Your task to perform on an android device: Clear the cart on amazon. Search for razer kraken on amazon, select the first entry, add it to the cart, then select checkout. Image 0: 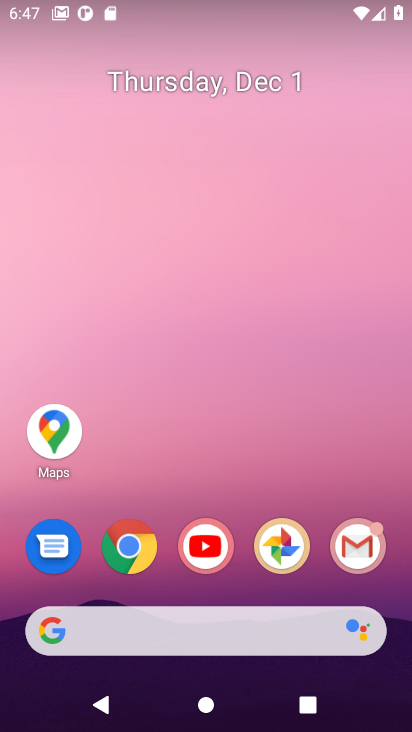
Step 0: click (135, 562)
Your task to perform on an android device: Clear the cart on amazon. Search for razer kraken on amazon, select the first entry, add it to the cart, then select checkout. Image 1: 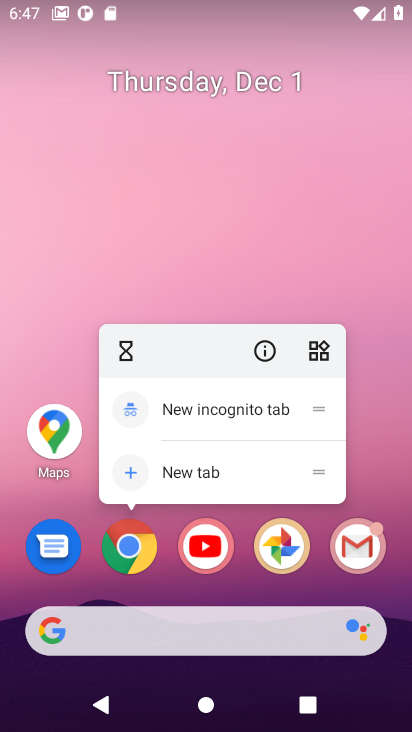
Step 1: click (128, 546)
Your task to perform on an android device: Clear the cart on amazon. Search for razer kraken on amazon, select the first entry, add it to the cart, then select checkout. Image 2: 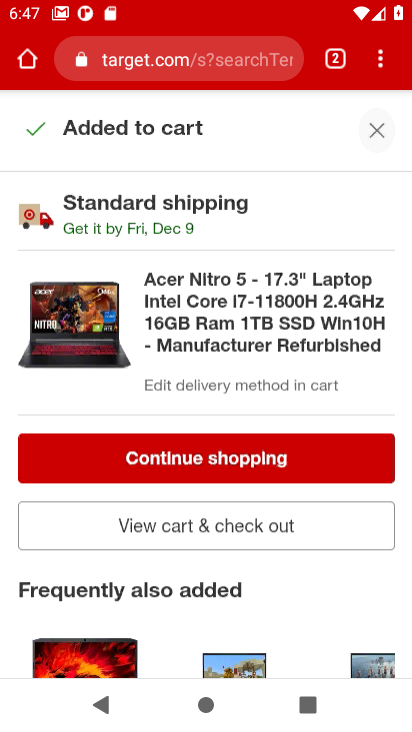
Step 2: click (175, 56)
Your task to perform on an android device: Clear the cart on amazon. Search for razer kraken on amazon, select the first entry, add it to the cart, then select checkout. Image 3: 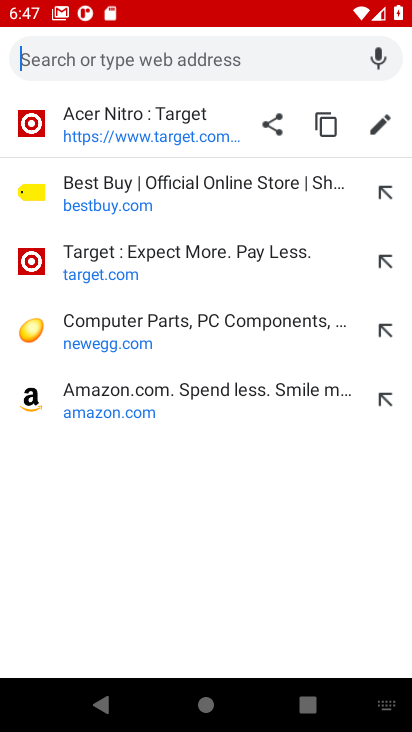
Step 3: click (122, 396)
Your task to perform on an android device: Clear the cart on amazon. Search for razer kraken on amazon, select the first entry, add it to the cart, then select checkout. Image 4: 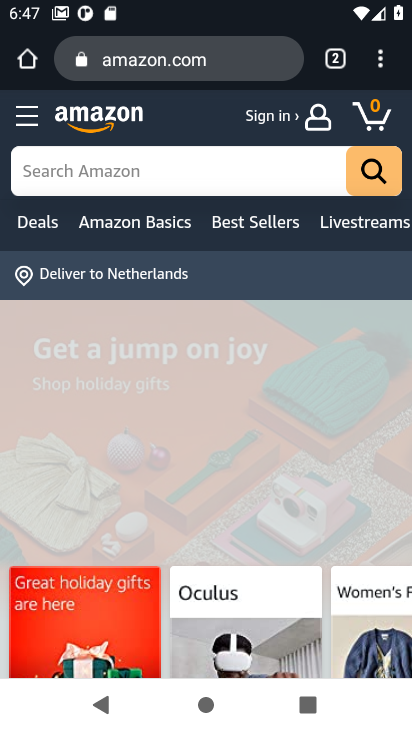
Step 4: click (373, 120)
Your task to perform on an android device: Clear the cart on amazon. Search for razer kraken on amazon, select the first entry, add it to the cart, then select checkout. Image 5: 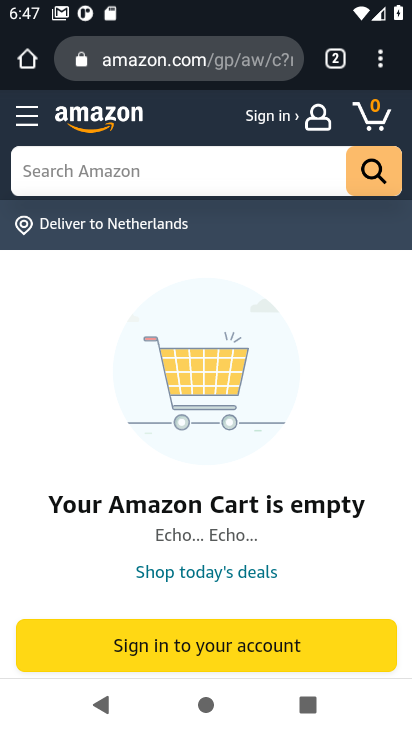
Step 5: click (75, 175)
Your task to perform on an android device: Clear the cart on amazon. Search for razer kraken on amazon, select the first entry, add it to the cart, then select checkout. Image 6: 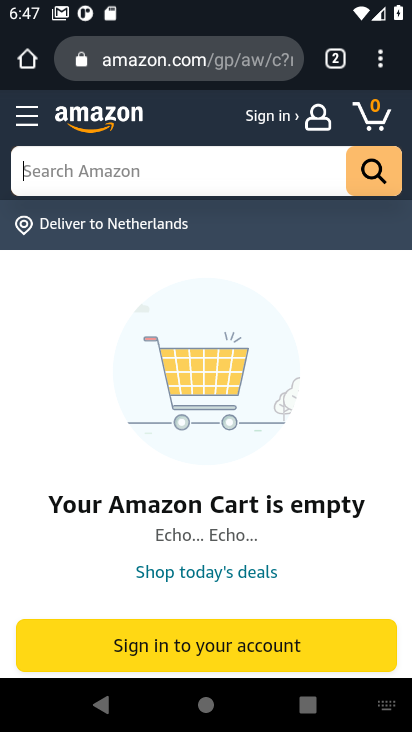
Step 6: type "razer kraken"
Your task to perform on an android device: Clear the cart on amazon. Search for razer kraken on amazon, select the first entry, add it to the cart, then select checkout. Image 7: 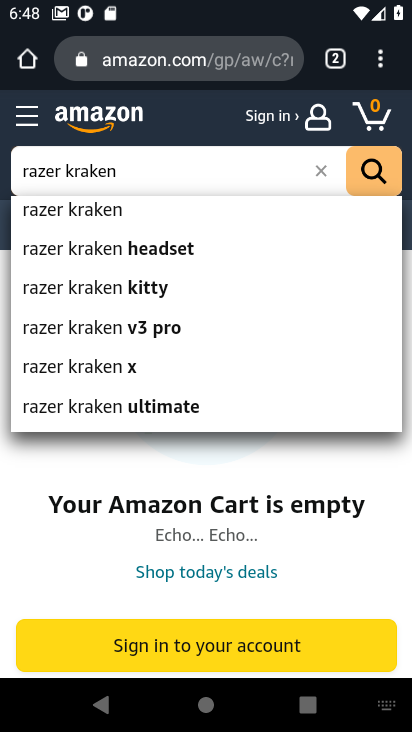
Step 7: click (92, 206)
Your task to perform on an android device: Clear the cart on amazon. Search for razer kraken on amazon, select the first entry, add it to the cart, then select checkout. Image 8: 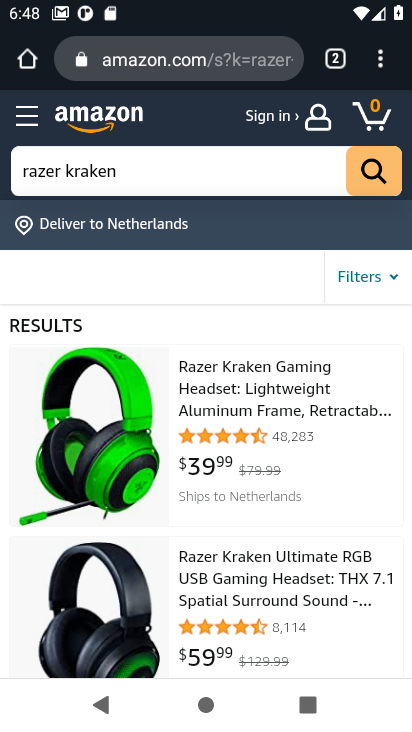
Step 8: click (197, 375)
Your task to perform on an android device: Clear the cart on amazon. Search for razer kraken on amazon, select the first entry, add it to the cart, then select checkout. Image 9: 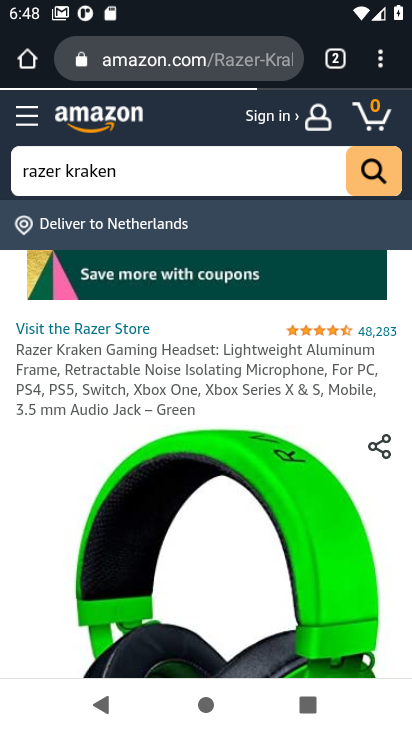
Step 9: drag from (195, 523) to (195, 373)
Your task to perform on an android device: Clear the cart on amazon. Search for razer kraken on amazon, select the first entry, add it to the cart, then select checkout. Image 10: 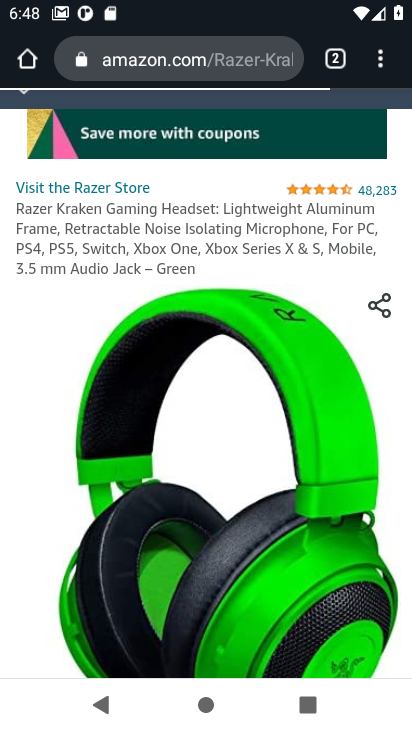
Step 10: drag from (214, 541) to (212, 344)
Your task to perform on an android device: Clear the cart on amazon. Search for razer kraken on amazon, select the first entry, add it to the cart, then select checkout. Image 11: 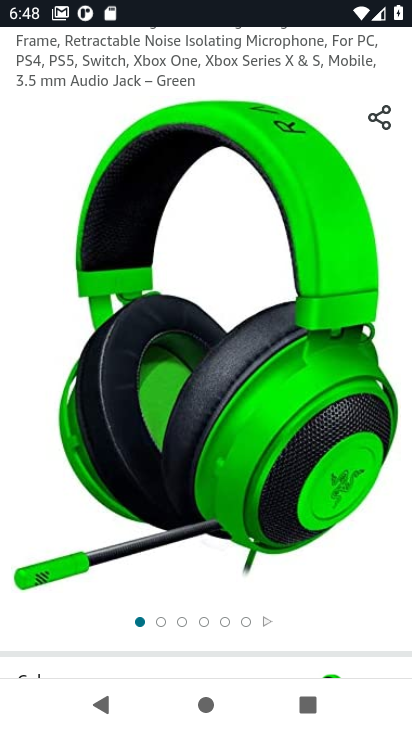
Step 11: drag from (208, 463) to (188, 334)
Your task to perform on an android device: Clear the cart on amazon. Search for razer kraken on amazon, select the first entry, add it to the cart, then select checkout. Image 12: 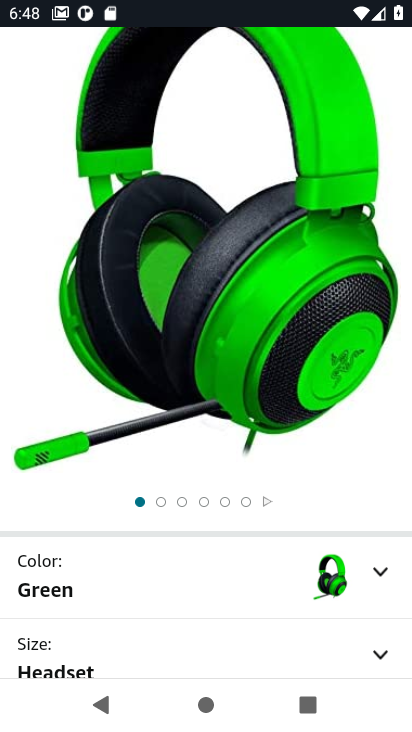
Step 12: drag from (188, 505) to (173, 277)
Your task to perform on an android device: Clear the cart on amazon. Search for razer kraken on amazon, select the first entry, add it to the cart, then select checkout. Image 13: 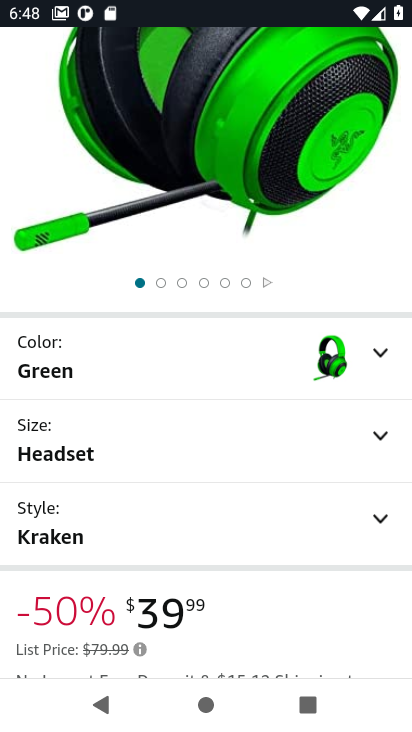
Step 13: drag from (199, 521) to (187, 321)
Your task to perform on an android device: Clear the cart on amazon. Search for razer kraken on amazon, select the first entry, add it to the cart, then select checkout. Image 14: 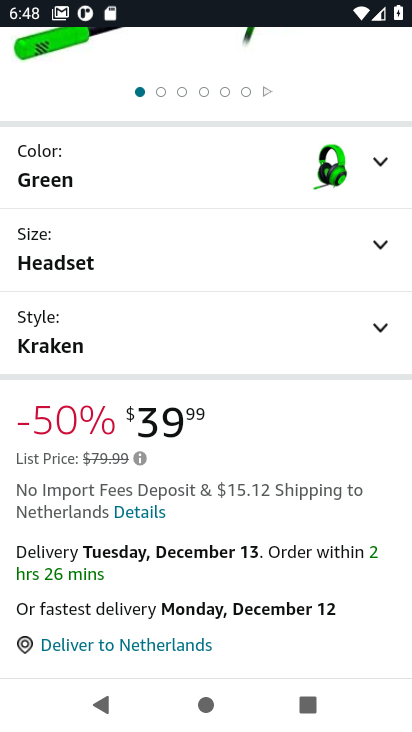
Step 14: drag from (167, 526) to (165, 256)
Your task to perform on an android device: Clear the cart on amazon. Search for razer kraken on amazon, select the first entry, add it to the cart, then select checkout. Image 15: 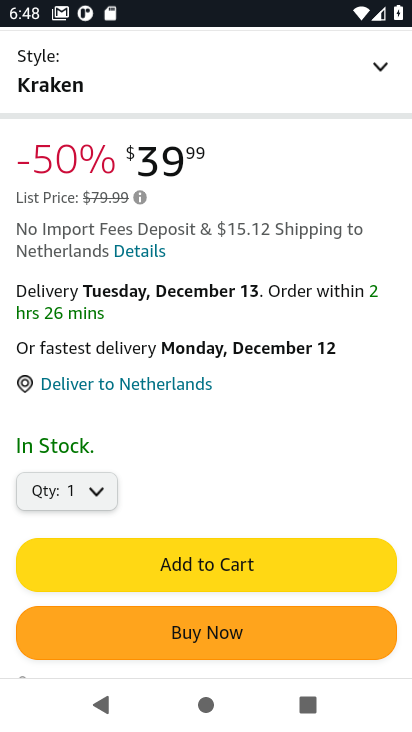
Step 15: click (191, 553)
Your task to perform on an android device: Clear the cart on amazon. Search for razer kraken on amazon, select the first entry, add it to the cart, then select checkout. Image 16: 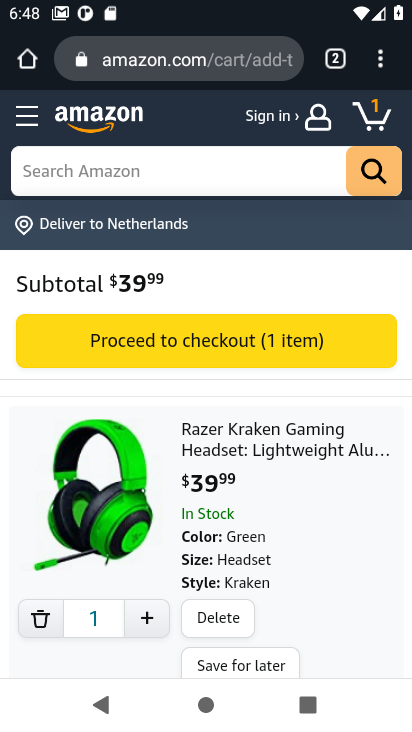
Step 16: click (163, 341)
Your task to perform on an android device: Clear the cart on amazon. Search for razer kraken on amazon, select the first entry, add it to the cart, then select checkout. Image 17: 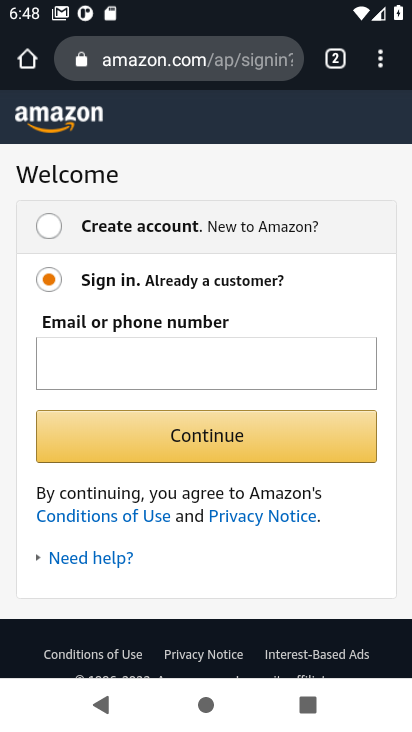
Step 17: task complete